Your task to perform on an android device: turn on javascript in the chrome app Image 0: 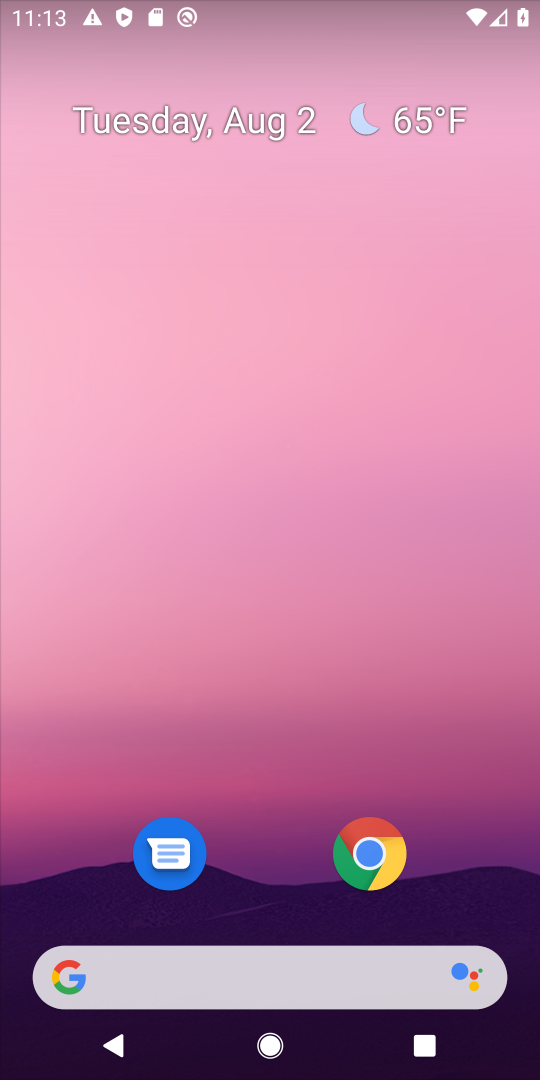
Step 0: press home button
Your task to perform on an android device: turn on javascript in the chrome app Image 1: 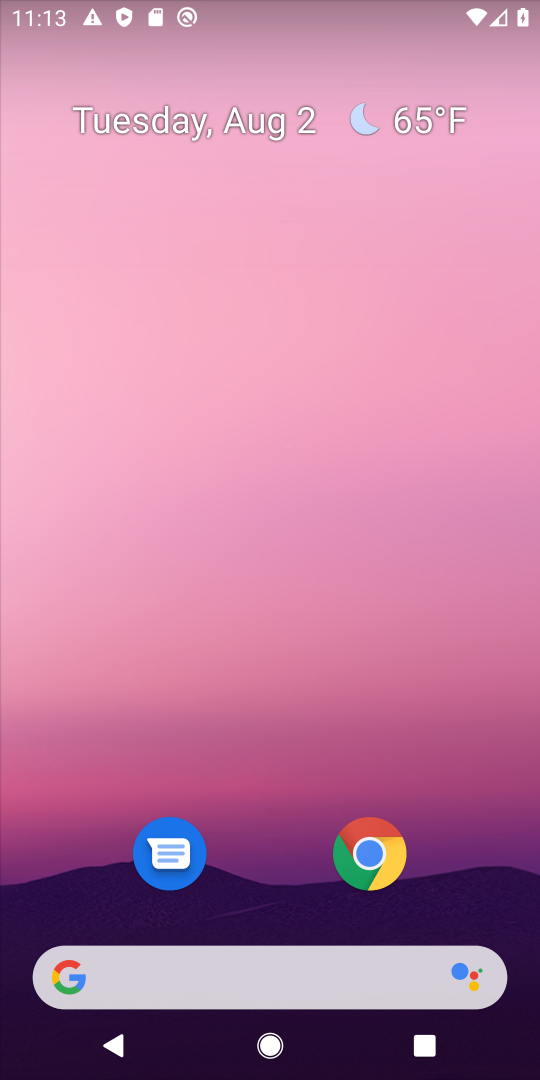
Step 1: drag from (497, 16) to (447, 742)
Your task to perform on an android device: turn on javascript in the chrome app Image 2: 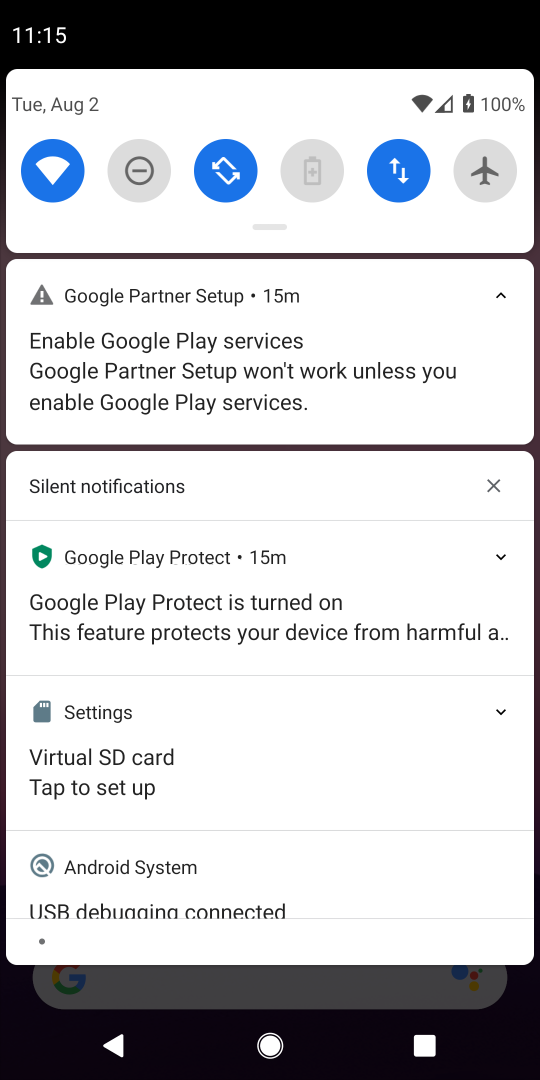
Step 2: drag from (342, 998) to (342, 216)
Your task to perform on an android device: turn on javascript in the chrome app Image 3: 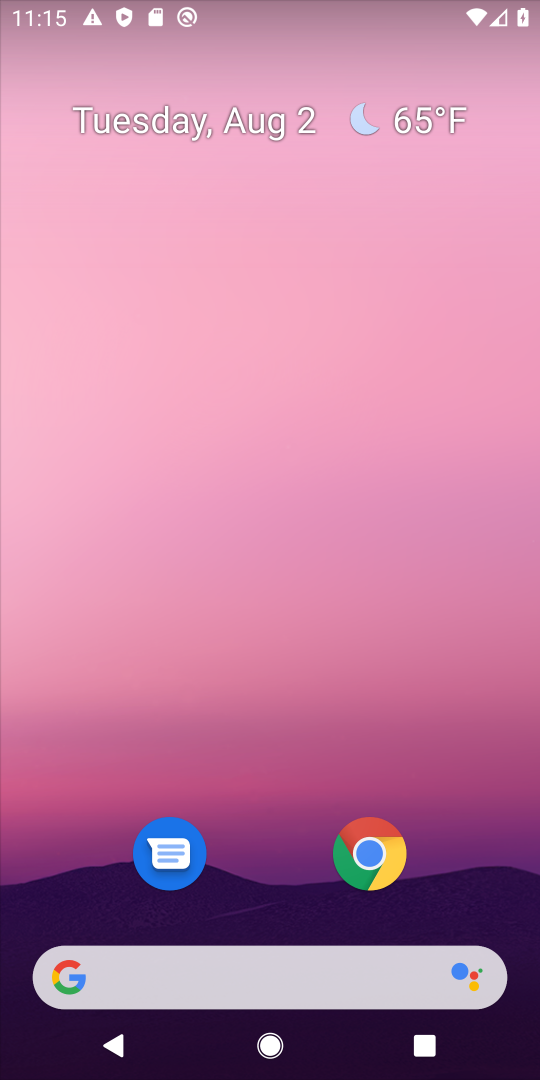
Step 3: click (375, 901)
Your task to perform on an android device: turn on javascript in the chrome app Image 4: 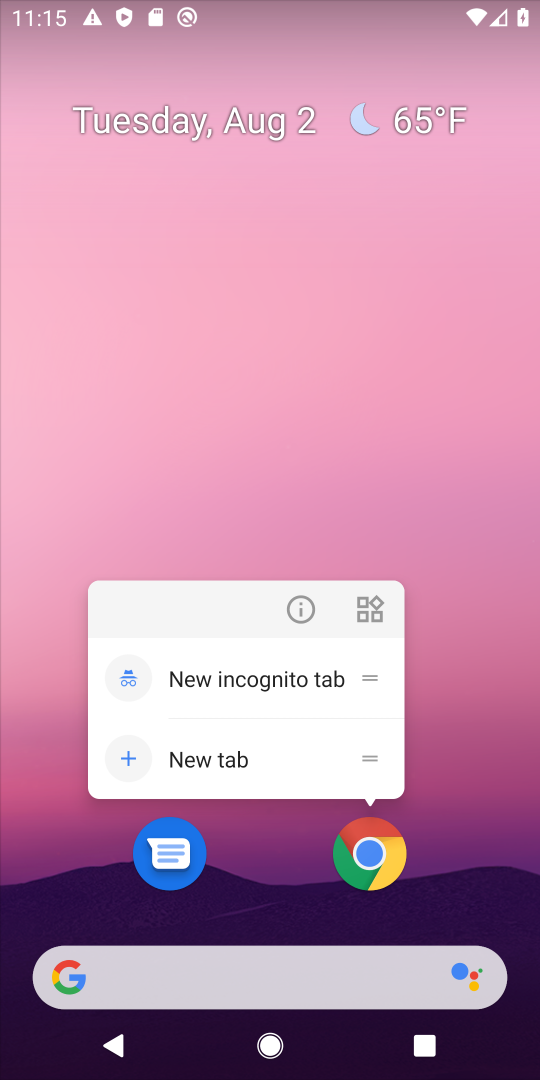
Step 4: click (370, 890)
Your task to perform on an android device: turn on javascript in the chrome app Image 5: 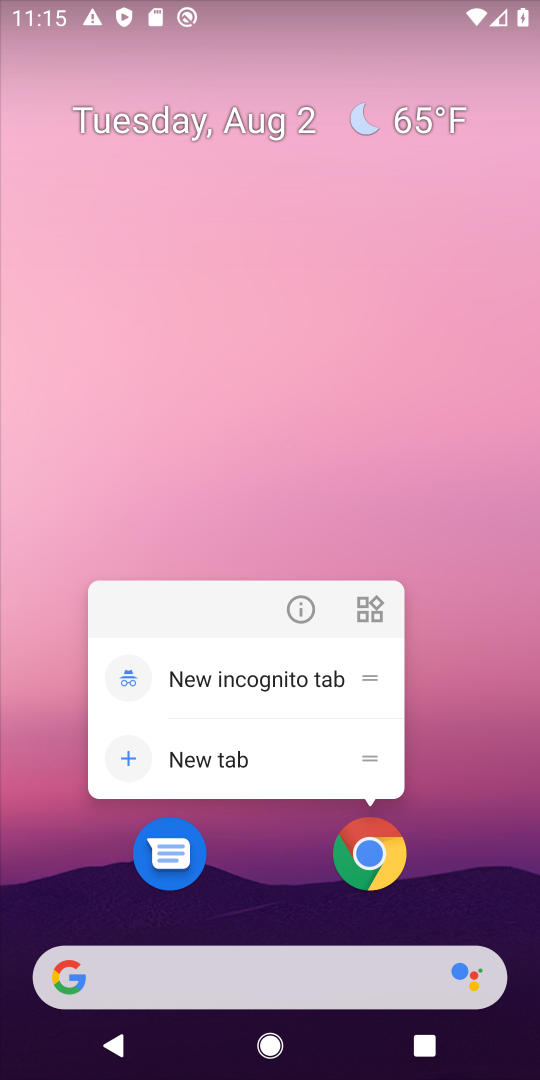
Step 5: click (363, 885)
Your task to perform on an android device: turn on javascript in the chrome app Image 6: 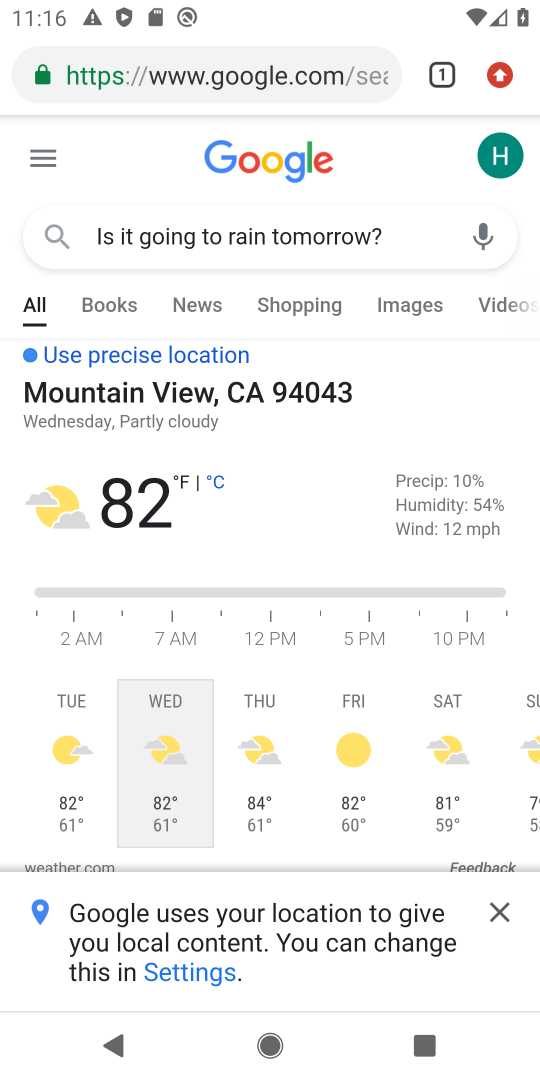
Step 6: click (501, 91)
Your task to perform on an android device: turn on javascript in the chrome app Image 7: 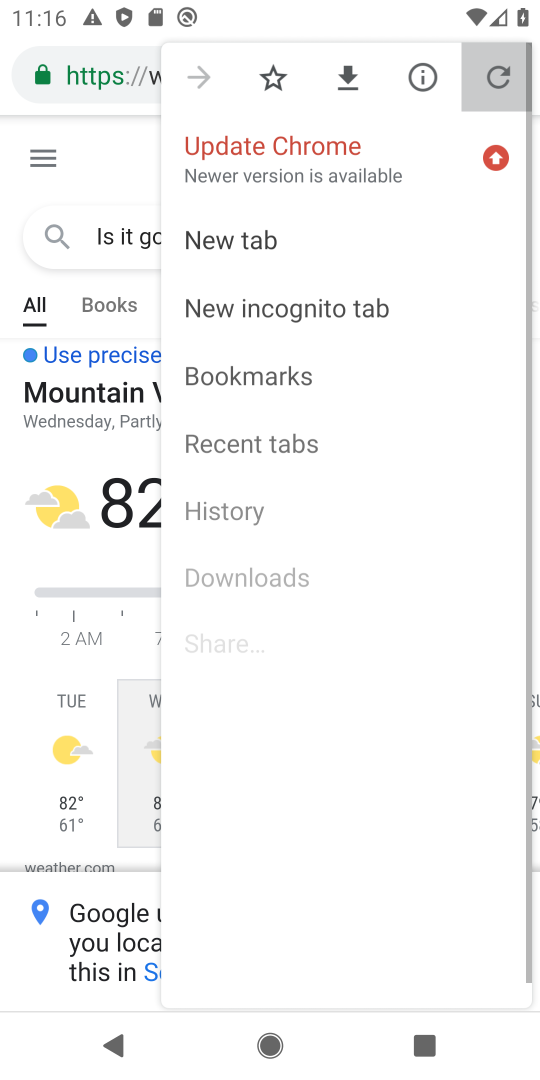
Step 7: click (462, 182)
Your task to perform on an android device: turn on javascript in the chrome app Image 8: 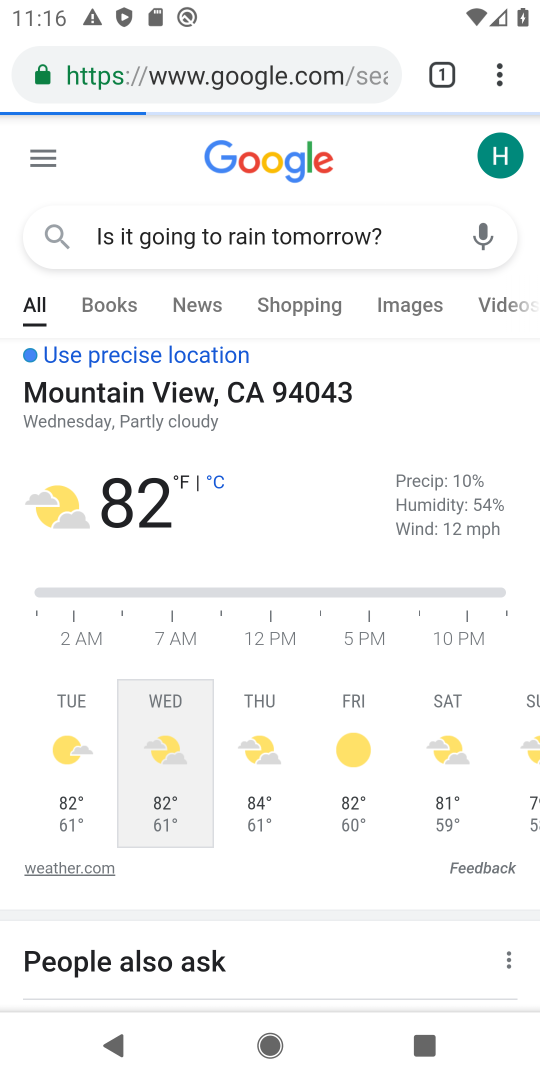
Step 8: click (455, 201)
Your task to perform on an android device: turn on javascript in the chrome app Image 9: 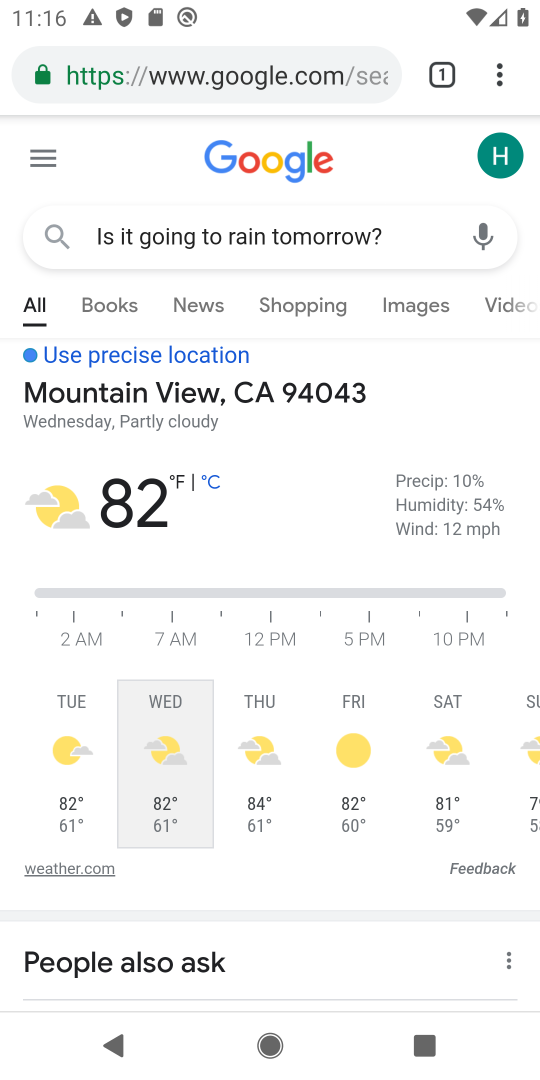
Step 9: drag from (502, 71) to (435, 800)
Your task to perform on an android device: turn on javascript in the chrome app Image 10: 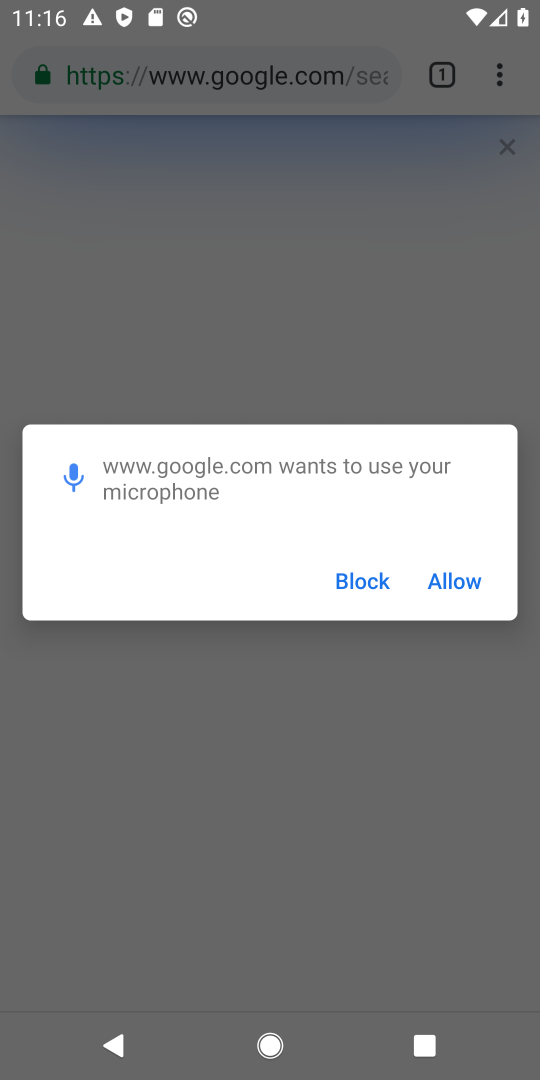
Step 10: click (452, 586)
Your task to perform on an android device: turn on javascript in the chrome app Image 11: 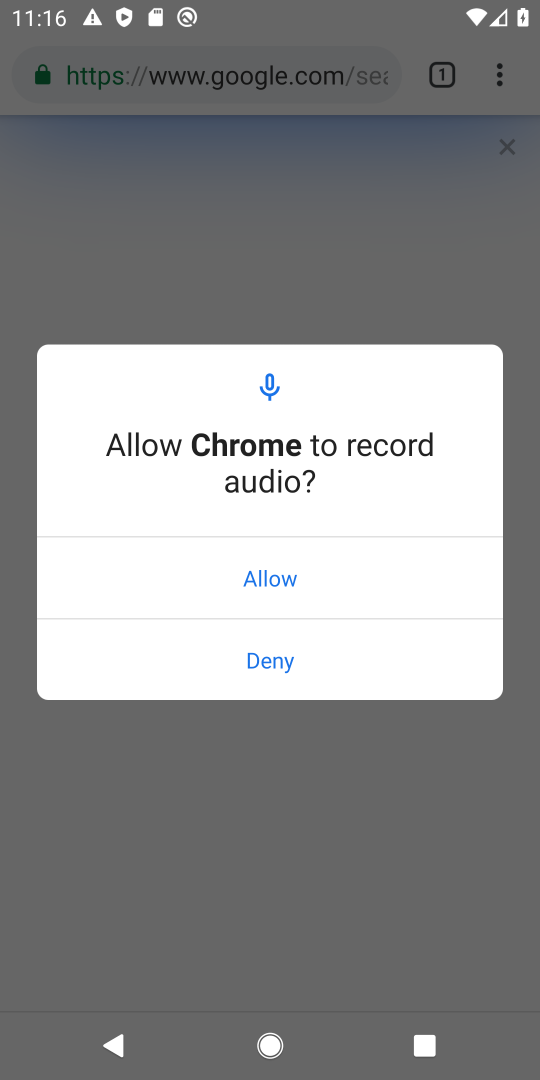
Step 11: press back button
Your task to perform on an android device: turn on javascript in the chrome app Image 12: 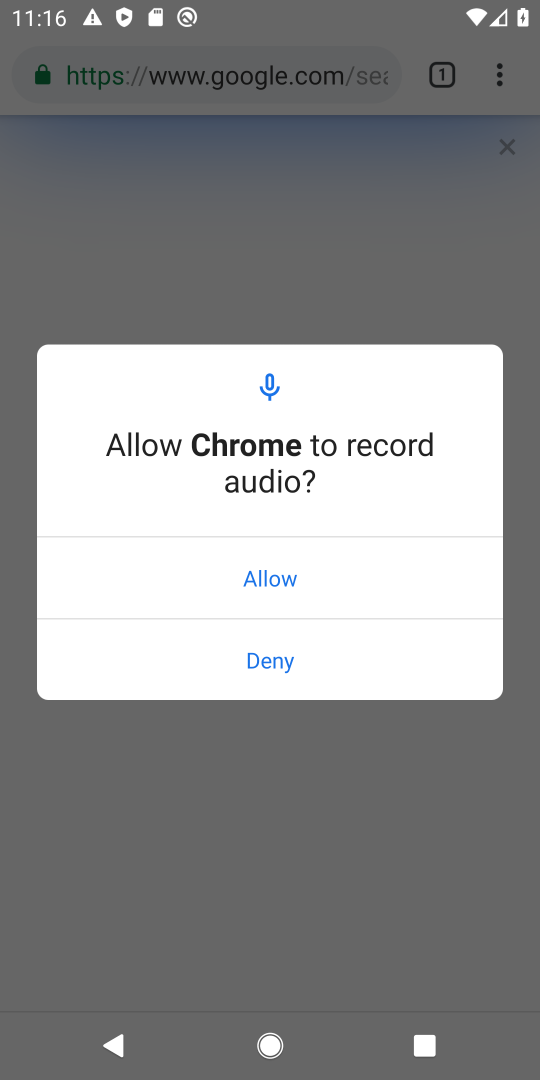
Step 12: press back button
Your task to perform on an android device: turn on javascript in the chrome app Image 13: 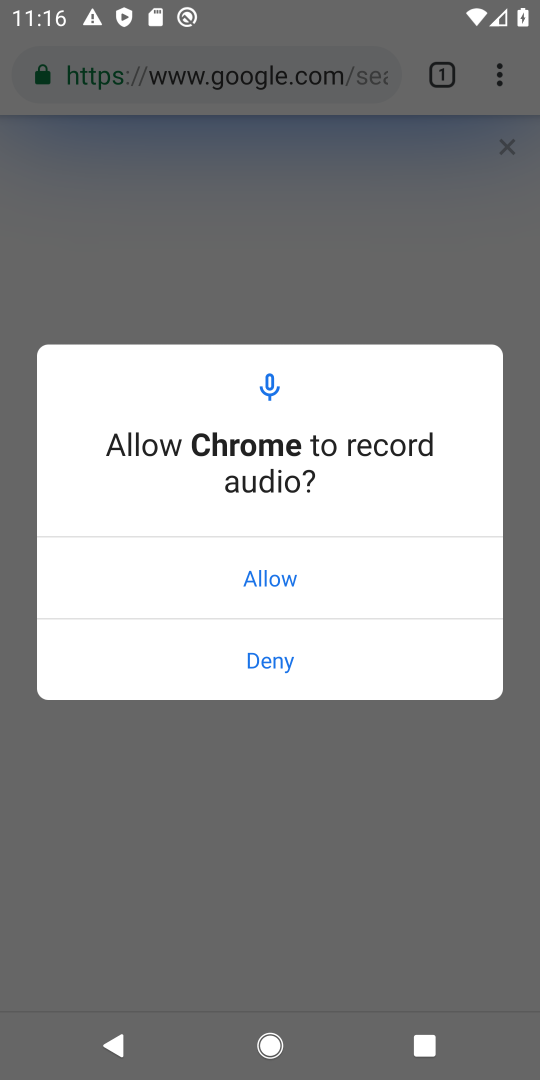
Step 13: press back button
Your task to perform on an android device: turn on javascript in the chrome app Image 14: 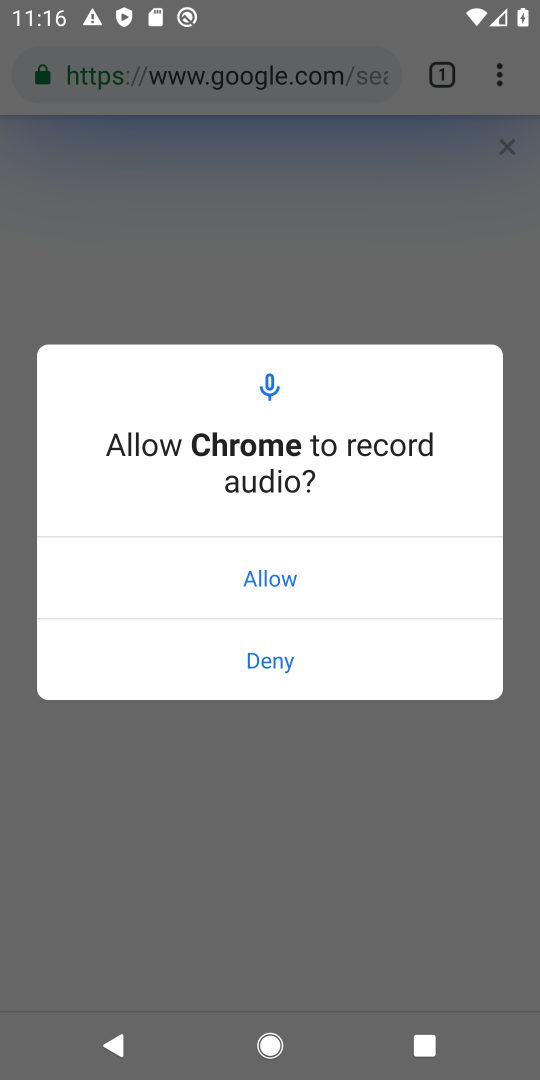
Step 14: press back button
Your task to perform on an android device: turn on javascript in the chrome app Image 15: 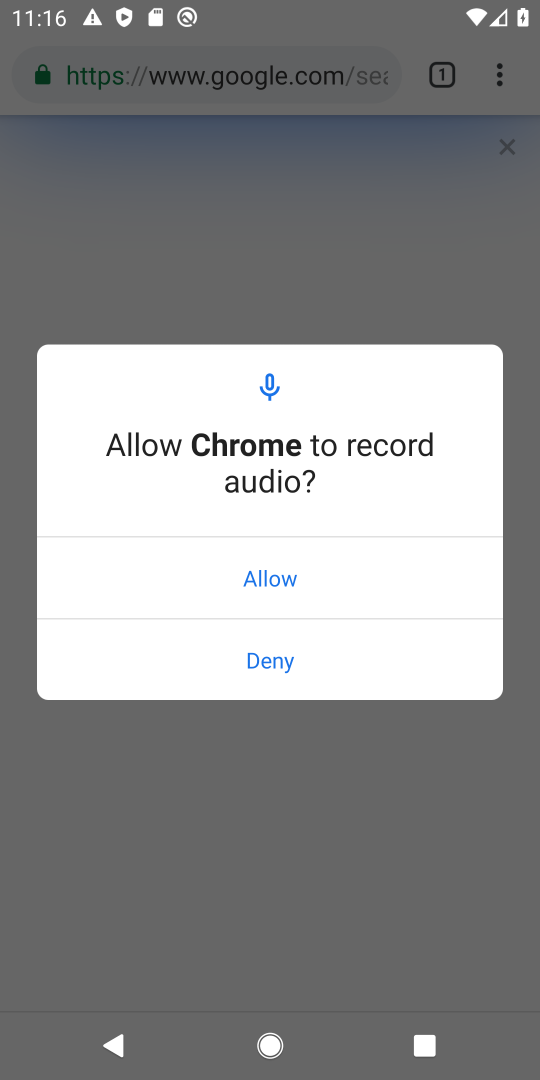
Step 15: press back button
Your task to perform on an android device: turn on javascript in the chrome app Image 16: 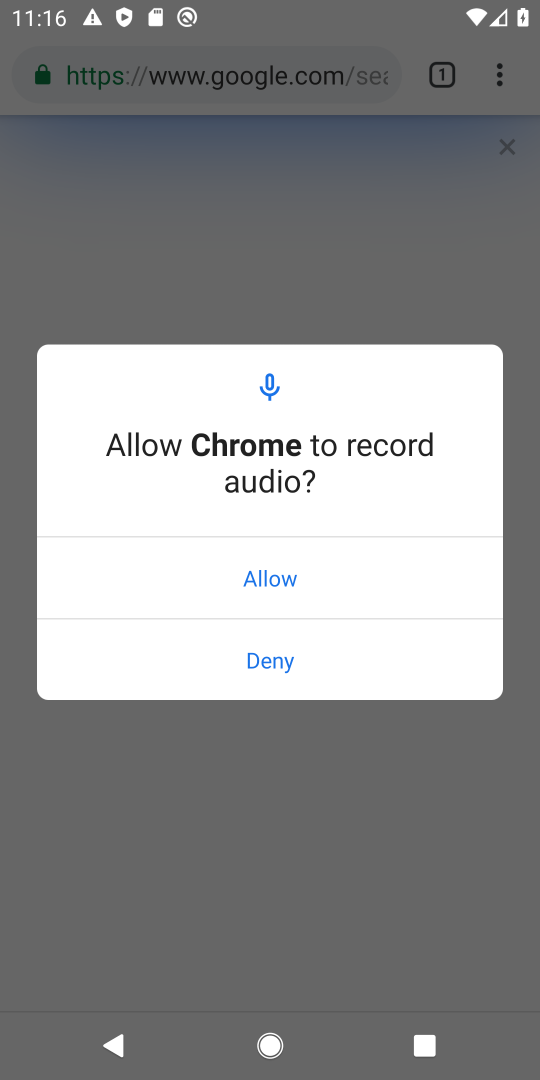
Step 16: press home button
Your task to perform on an android device: turn on javascript in the chrome app Image 17: 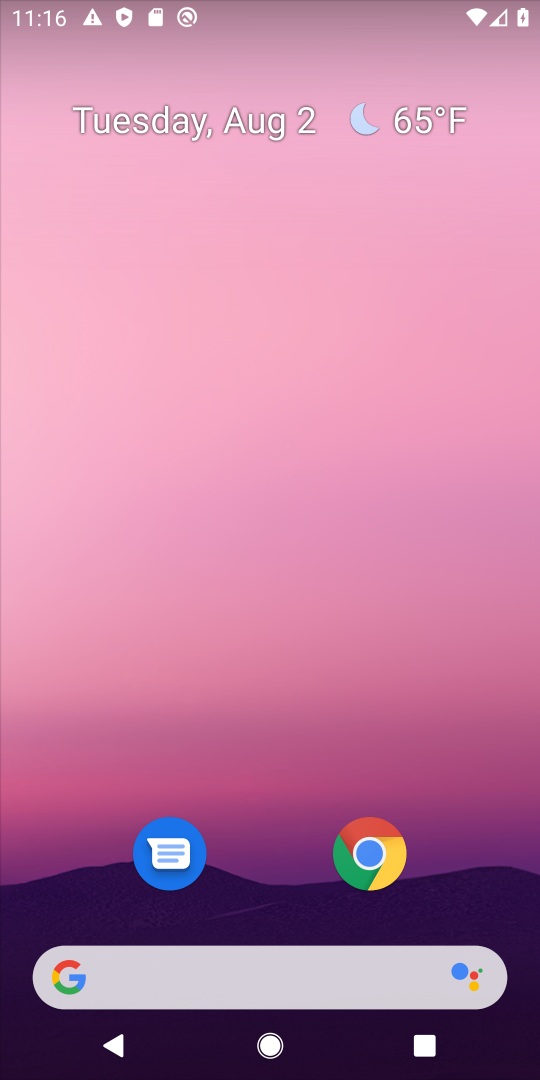
Step 17: click (358, 864)
Your task to perform on an android device: turn on javascript in the chrome app Image 18: 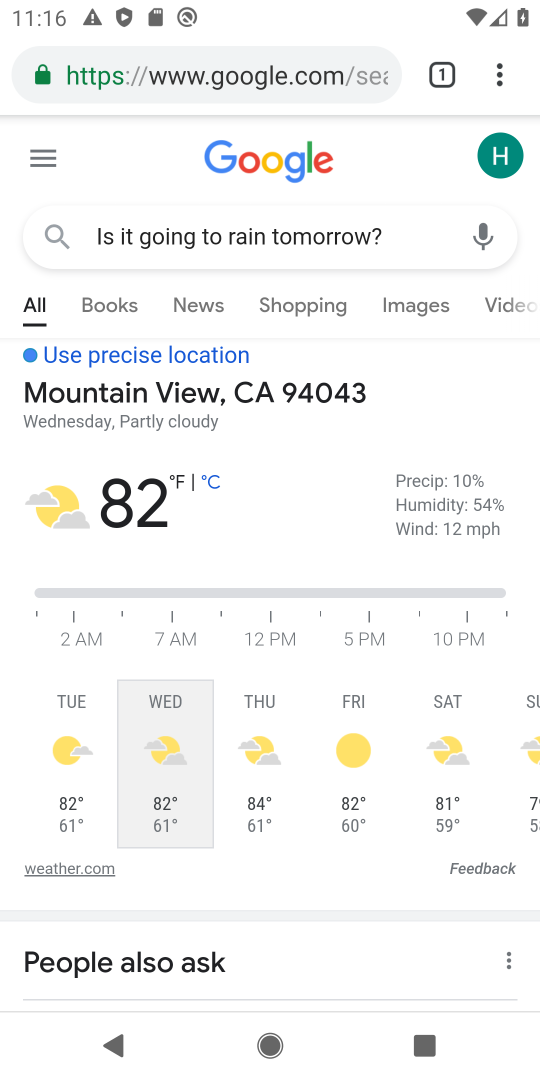
Step 18: drag from (489, 57) to (270, 913)
Your task to perform on an android device: turn on javascript in the chrome app Image 19: 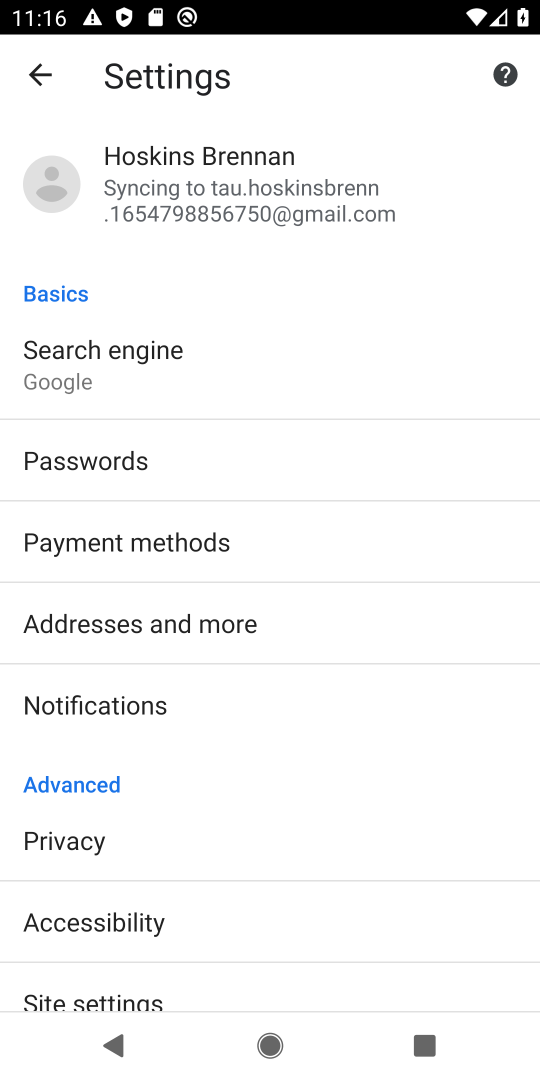
Step 19: click (89, 997)
Your task to perform on an android device: turn on javascript in the chrome app Image 20: 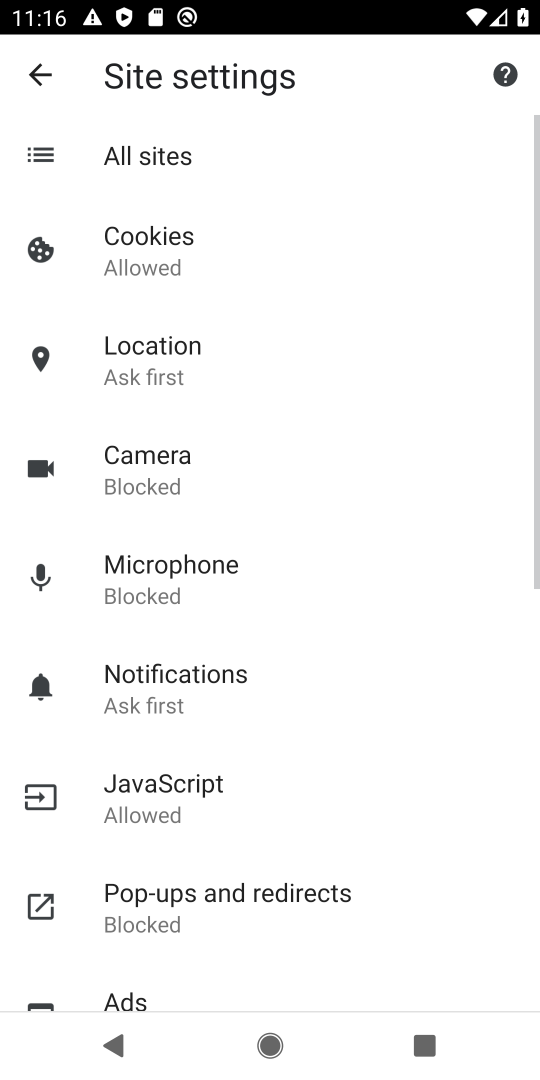
Step 20: click (120, 774)
Your task to perform on an android device: turn on javascript in the chrome app Image 21: 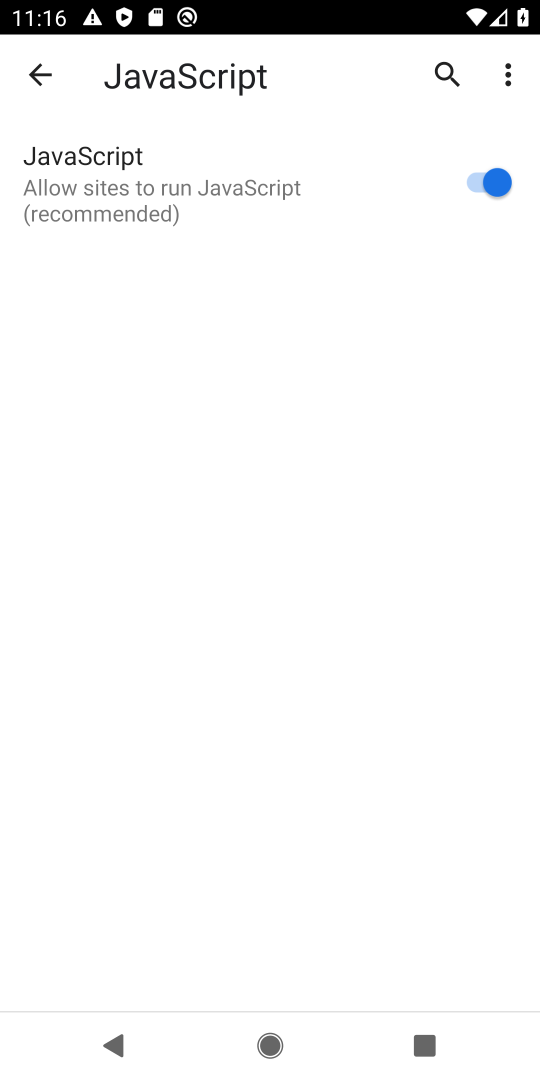
Step 21: click (139, 209)
Your task to perform on an android device: turn on javascript in the chrome app Image 22: 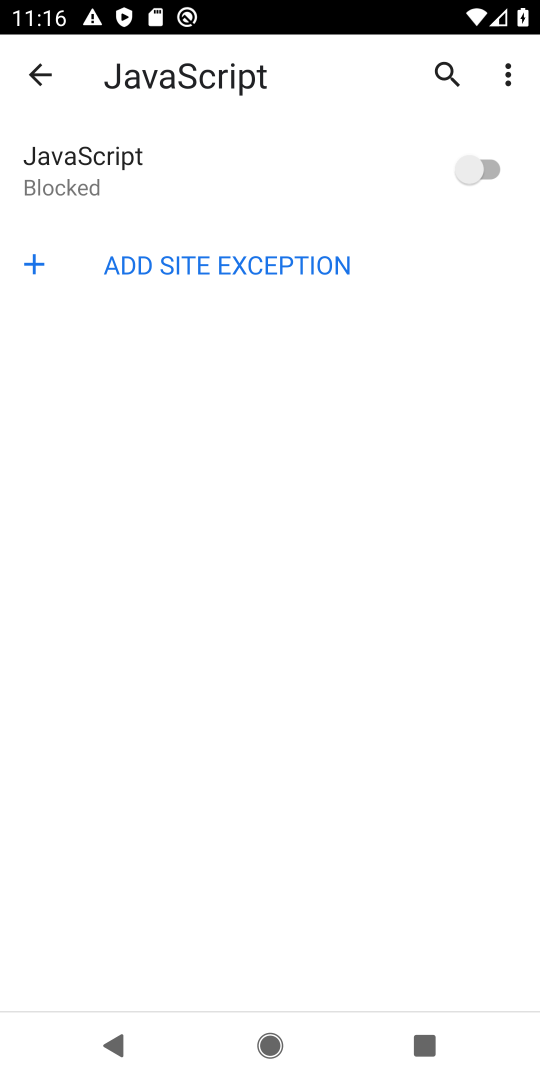
Step 22: click (139, 209)
Your task to perform on an android device: turn on javascript in the chrome app Image 23: 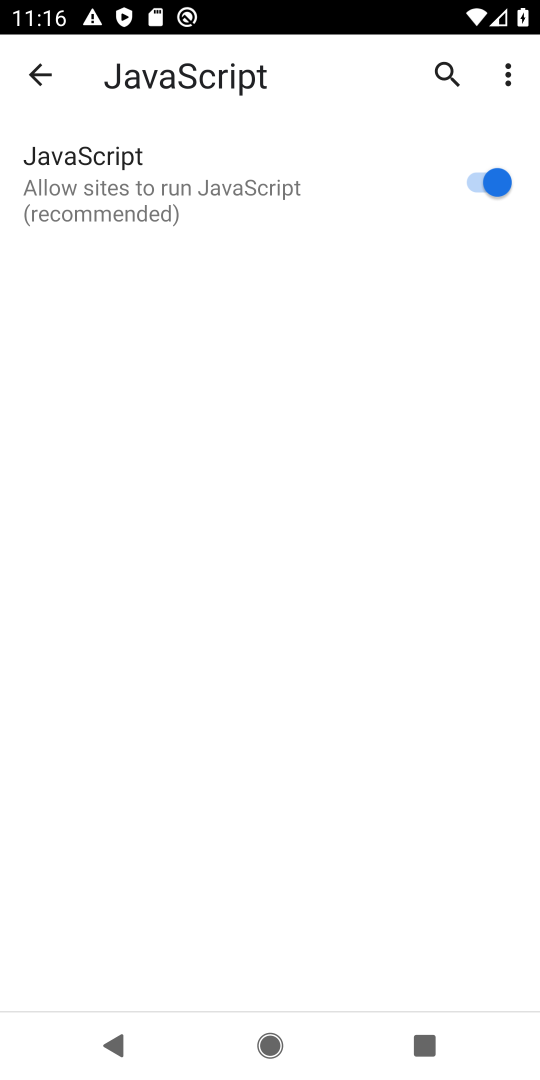
Step 23: task complete